Your task to perform on an android device: Go to notification settings Image 0: 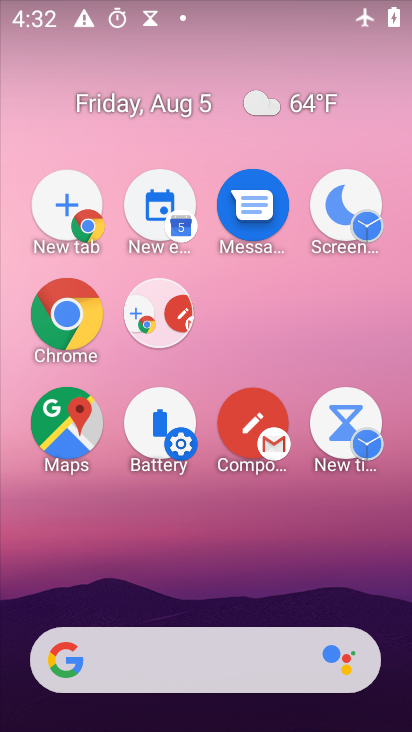
Step 0: click (231, 176)
Your task to perform on an android device: Go to notification settings Image 1: 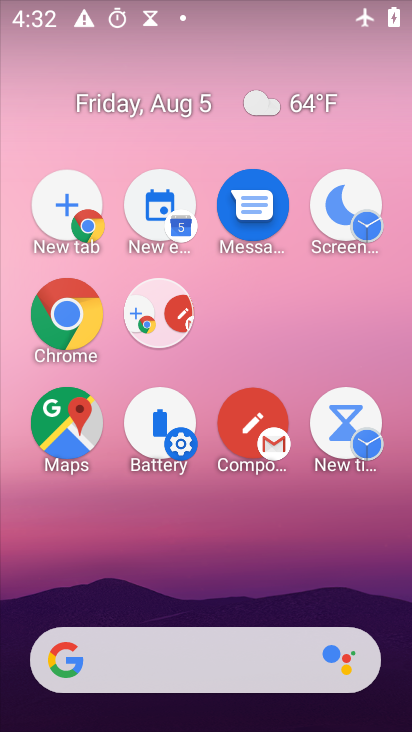
Step 1: drag from (193, 465) to (177, 206)
Your task to perform on an android device: Go to notification settings Image 2: 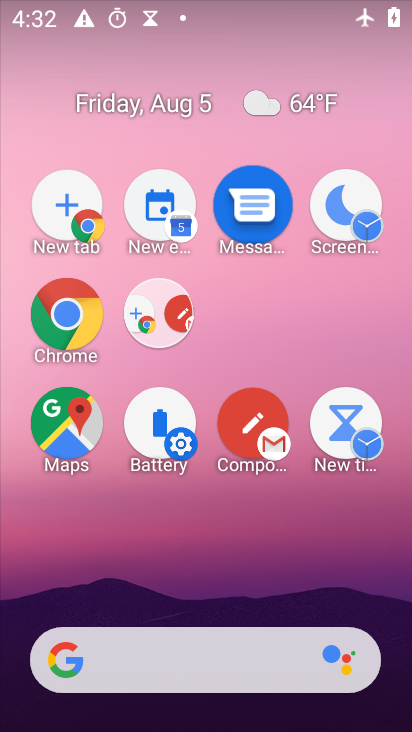
Step 2: drag from (144, 486) to (159, 86)
Your task to perform on an android device: Go to notification settings Image 3: 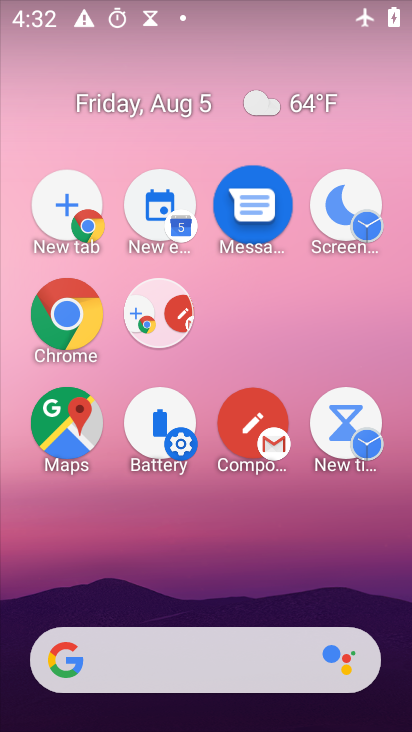
Step 3: click (240, 134)
Your task to perform on an android device: Go to notification settings Image 4: 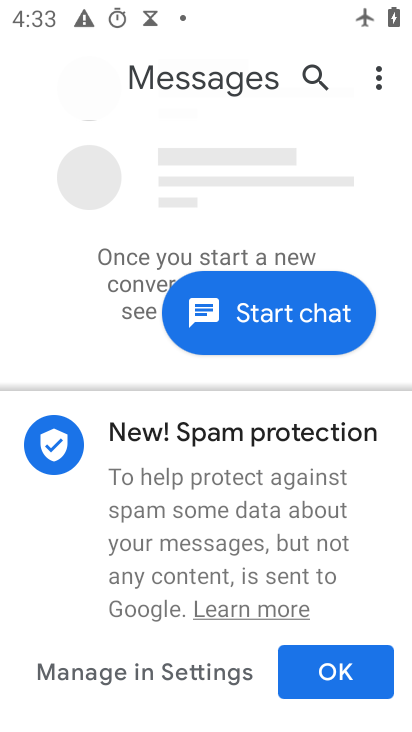
Step 4: click (334, 662)
Your task to perform on an android device: Go to notification settings Image 5: 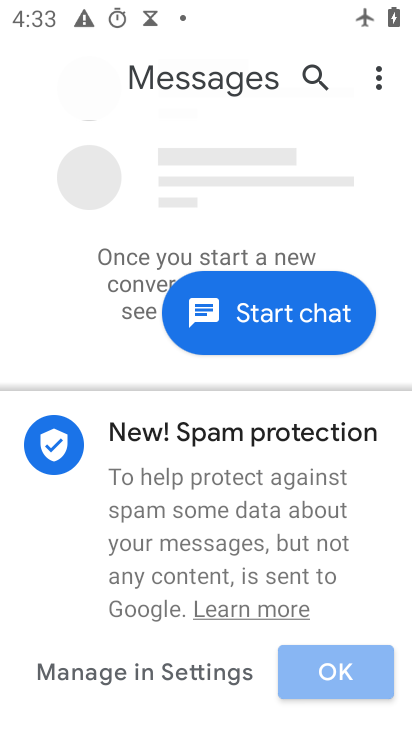
Step 5: click (339, 676)
Your task to perform on an android device: Go to notification settings Image 6: 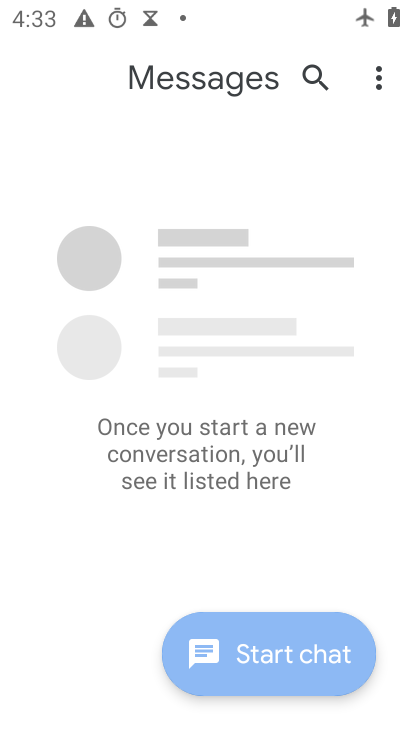
Step 6: click (339, 676)
Your task to perform on an android device: Go to notification settings Image 7: 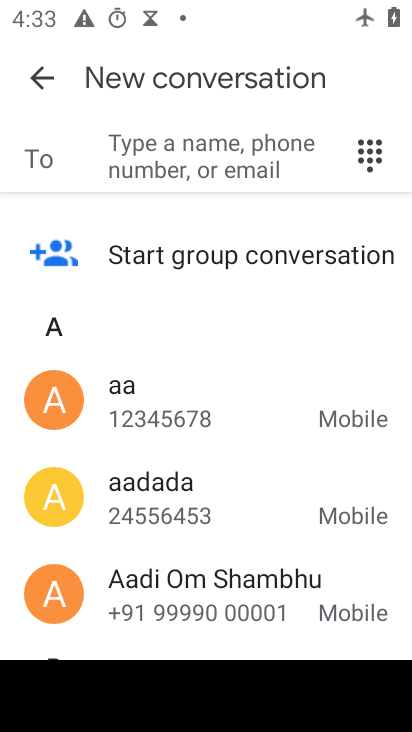
Step 7: click (36, 79)
Your task to perform on an android device: Go to notification settings Image 8: 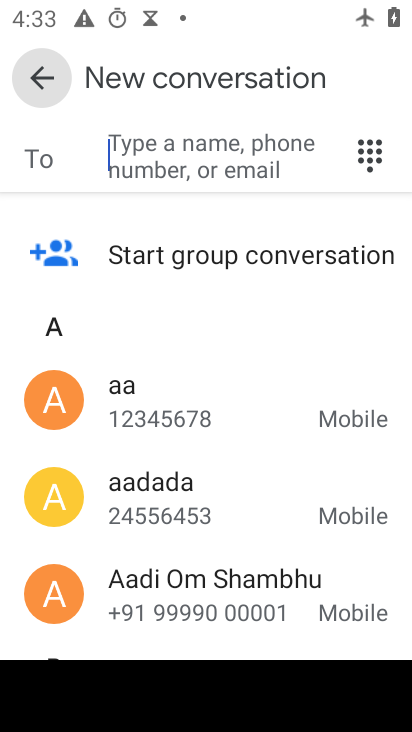
Step 8: click (46, 72)
Your task to perform on an android device: Go to notification settings Image 9: 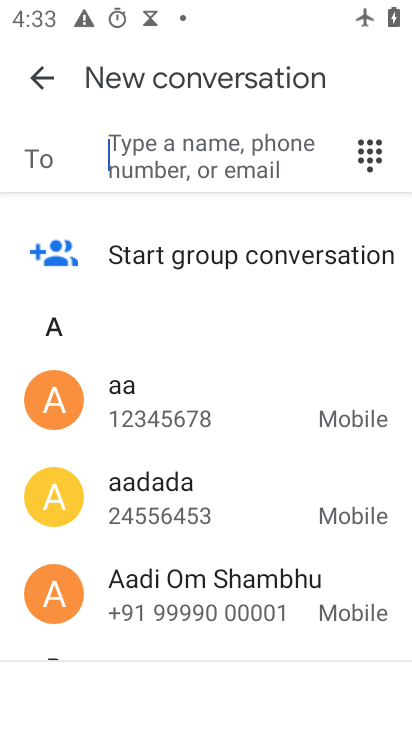
Step 9: click (47, 73)
Your task to perform on an android device: Go to notification settings Image 10: 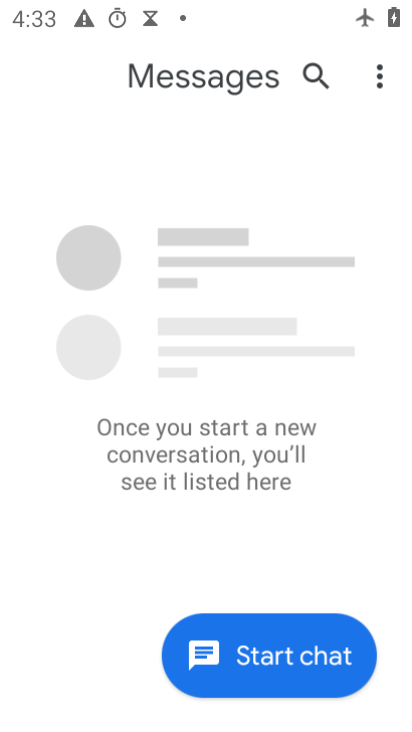
Step 10: click (47, 73)
Your task to perform on an android device: Go to notification settings Image 11: 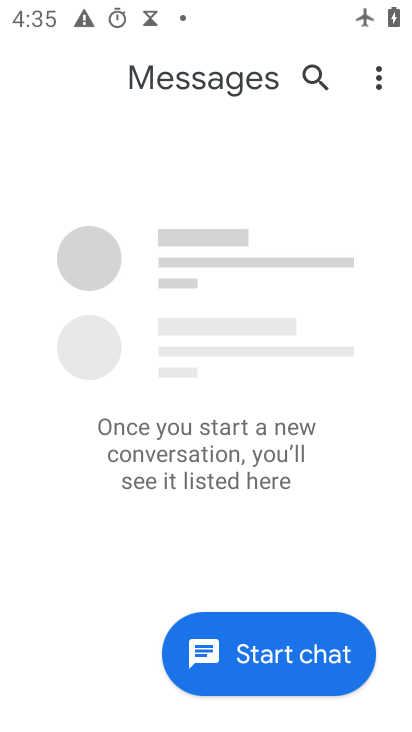
Step 11: press back button
Your task to perform on an android device: Go to notification settings Image 12: 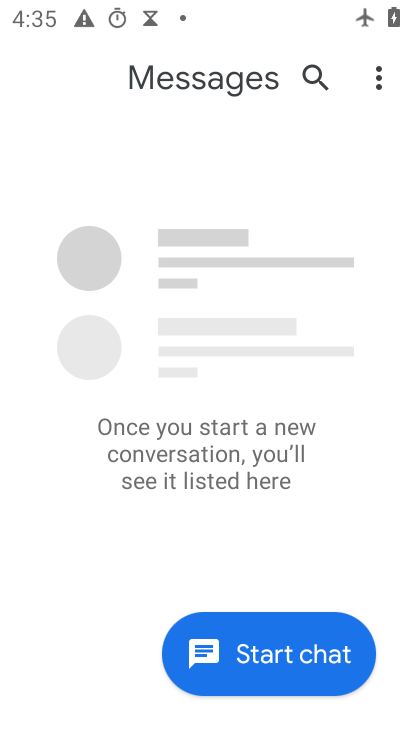
Step 12: press back button
Your task to perform on an android device: Go to notification settings Image 13: 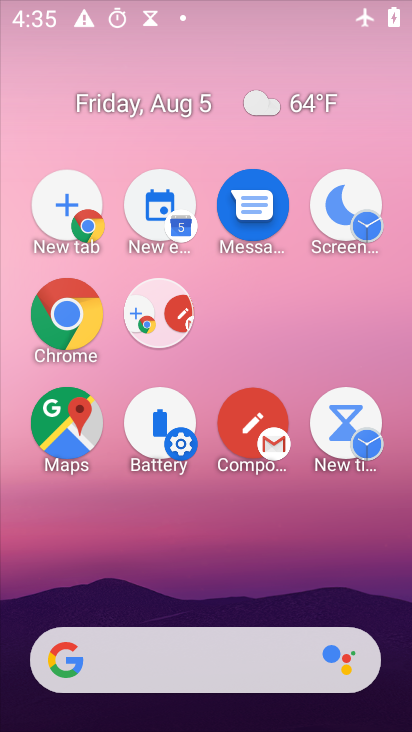
Step 13: drag from (303, 502) to (304, 64)
Your task to perform on an android device: Go to notification settings Image 14: 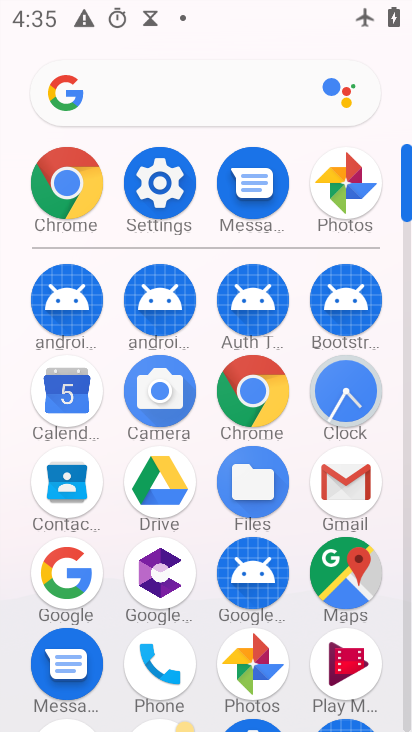
Step 14: drag from (321, 655) to (196, 73)
Your task to perform on an android device: Go to notification settings Image 15: 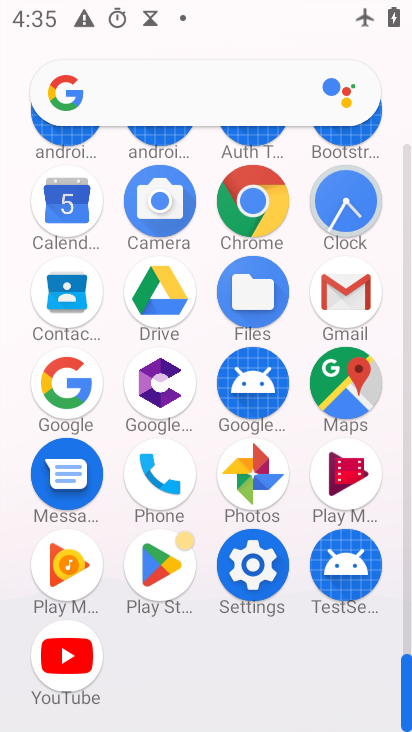
Step 15: drag from (227, 416) to (209, 166)
Your task to perform on an android device: Go to notification settings Image 16: 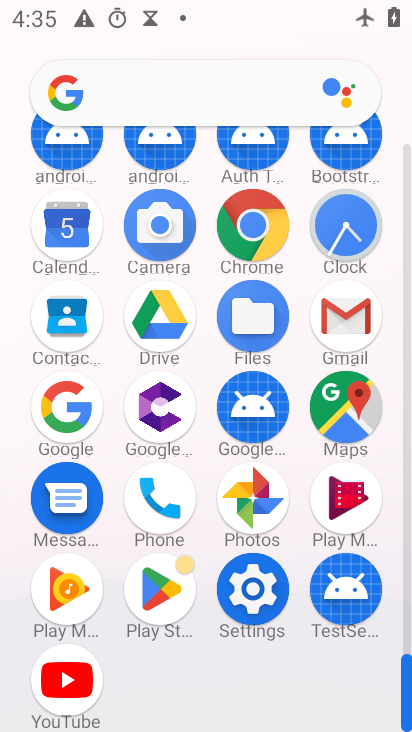
Step 16: click (269, 612)
Your task to perform on an android device: Go to notification settings Image 17: 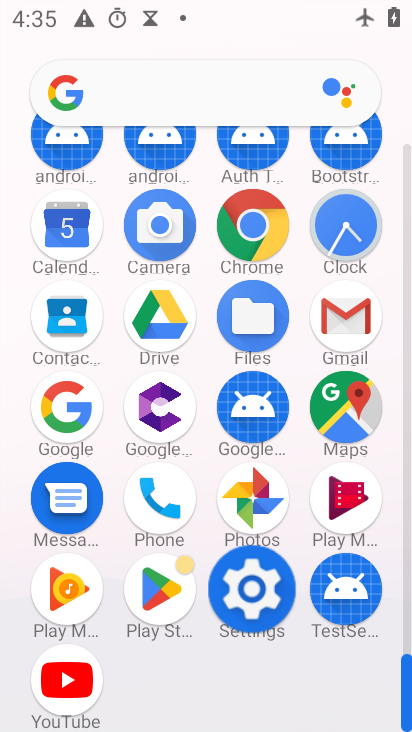
Step 17: click (260, 611)
Your task to perform on an android device: Go to notification settings Image 18: 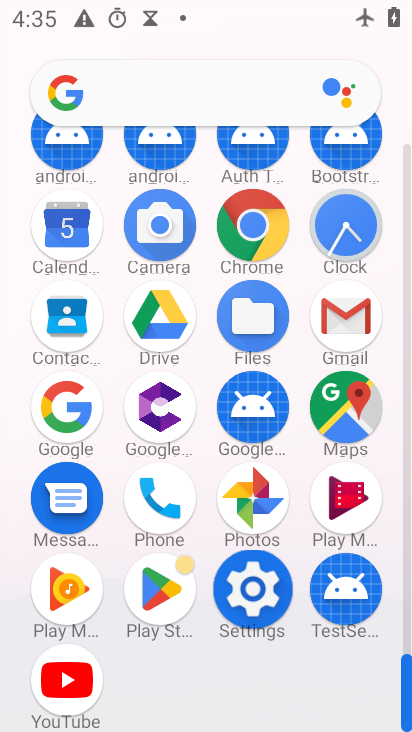
Step 18: click (260, 600)
Your task to perform on an android device: Go to notification settings Image 19: 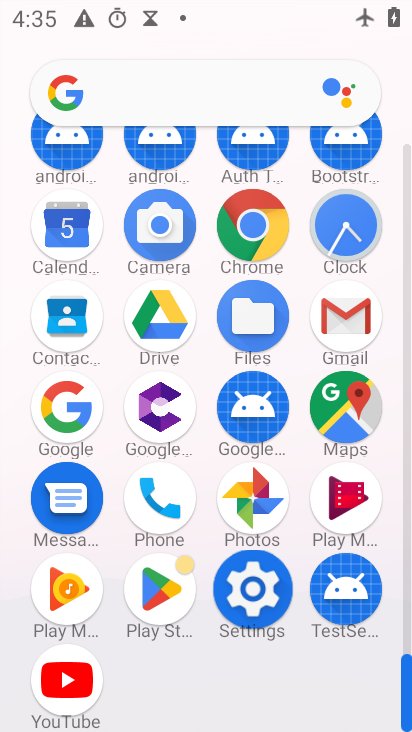
Step 19: drag from (261, 595) to (248, 557)
Your task to perform on an android device: Go to notification settings Image 20: 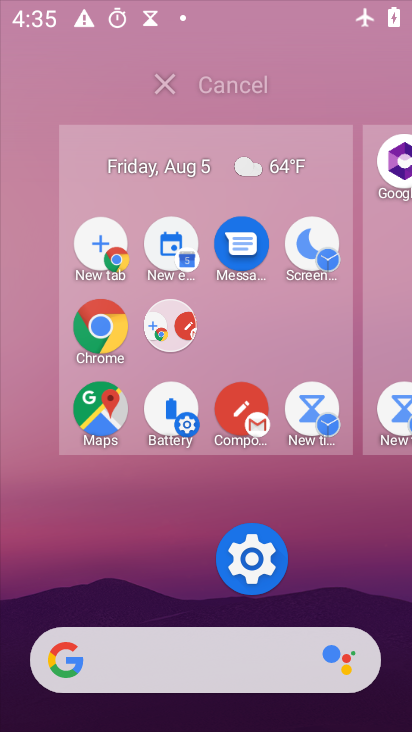
Step 20: click (257, 551)
Your task to perform on an android device: Go to notification settings Image 21: 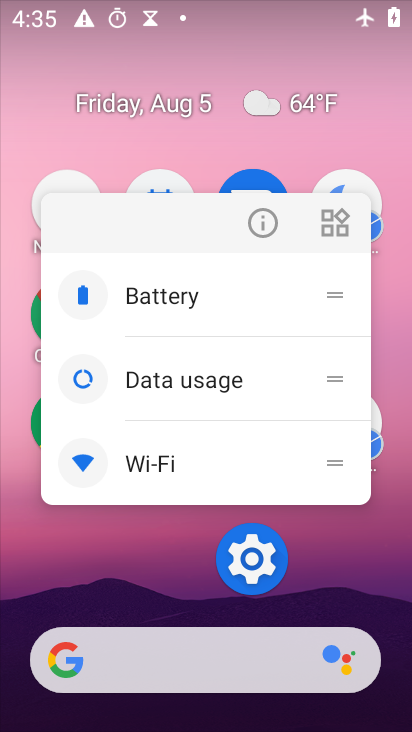
Step 21: task complete